Your task to perform on an android device: Open Maps and search for coffee Image 0: 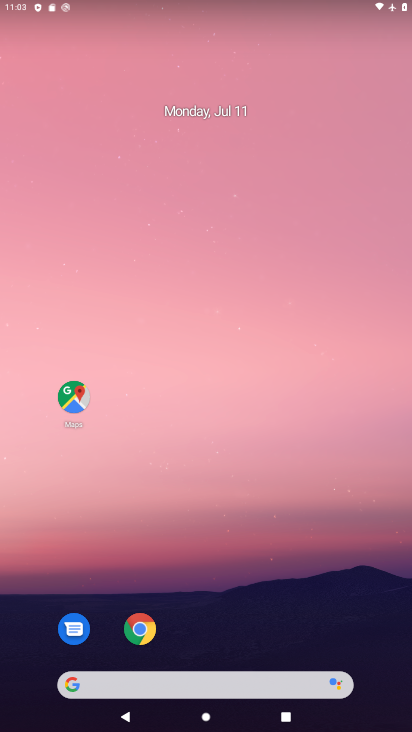
Step 0: click (238, 167)
Your task to perform on an android device: Open Maps and search for coffee Image 1: 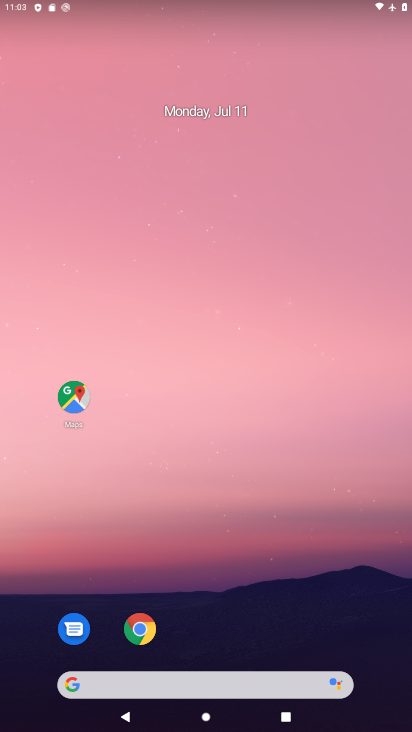
Step 1: drag from (350, 698) to (230, 223)
Your task to perform on an android device: Open Maps and search for coffee Image 2: 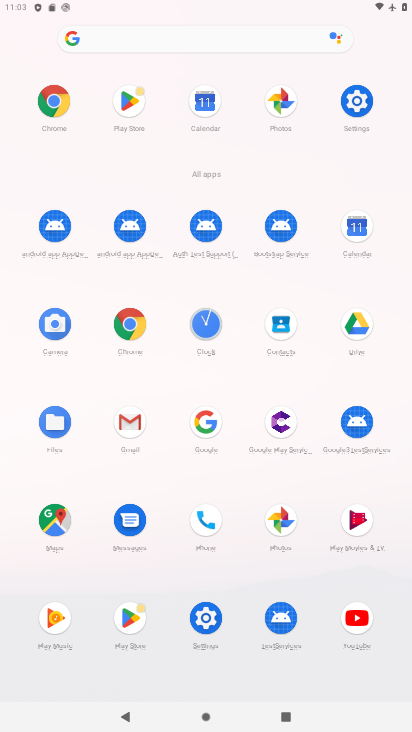
Step 2: click (52, 519)
Your task to perform on an android device: Open Maps and search for coffee Image 3: 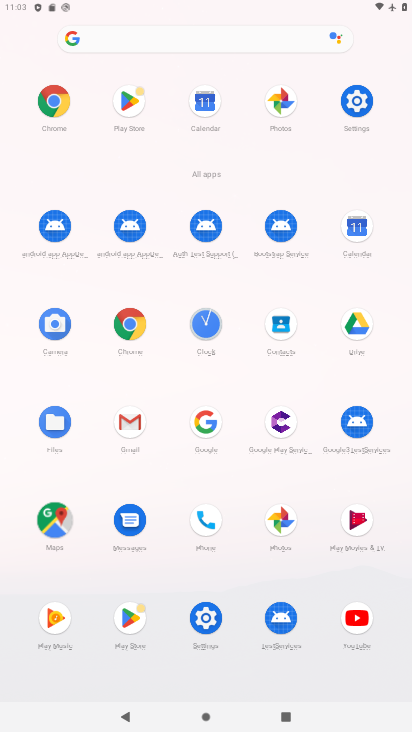
Step 3: click (53, 520)
Your task to perform on an android device: Open Maps and search for coffee Image 4: 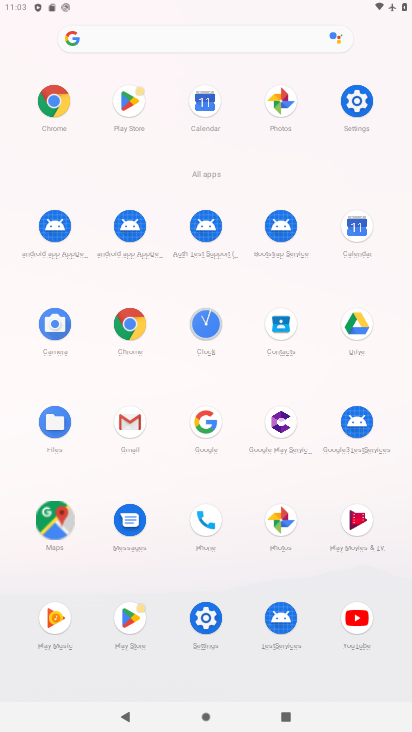
Step 4: click (56, 519)
Your task to perform on an android device: Open Maps and search for coffee Image 5: 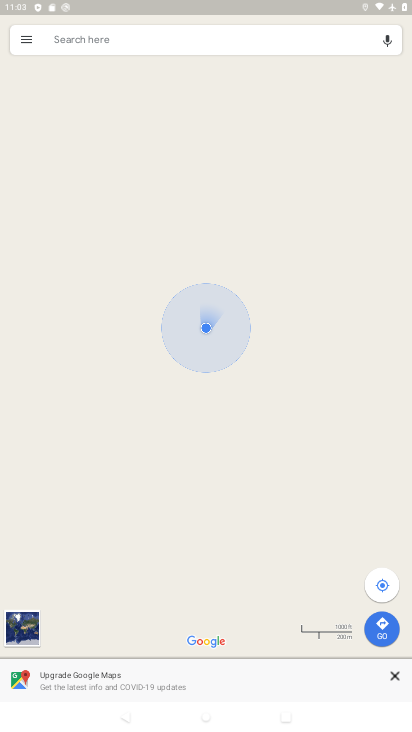
Step 5: click (58, 31)
Your task to perform on an android device: Open Maps and search for coffee Image 6: 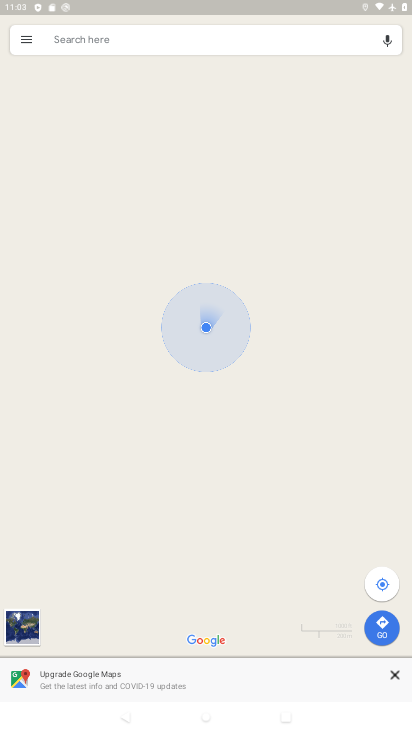
Step 6: click (61, 32)
Your task to perform on an android device: Open Maps and search for coffee Image 7: 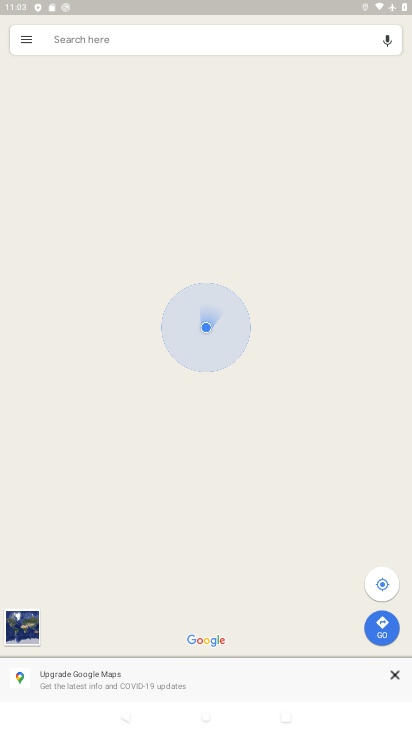
Step 7: click (63, 34)
Your task to perform on an android device: Open Maps and search for coffee Image 8: 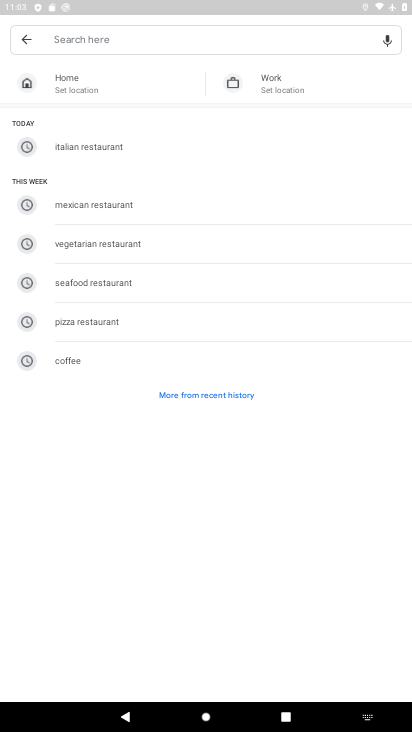
Step 8: type "coffee"
Your task to perform on an android device: Open Maps and search for coffee Image 9: 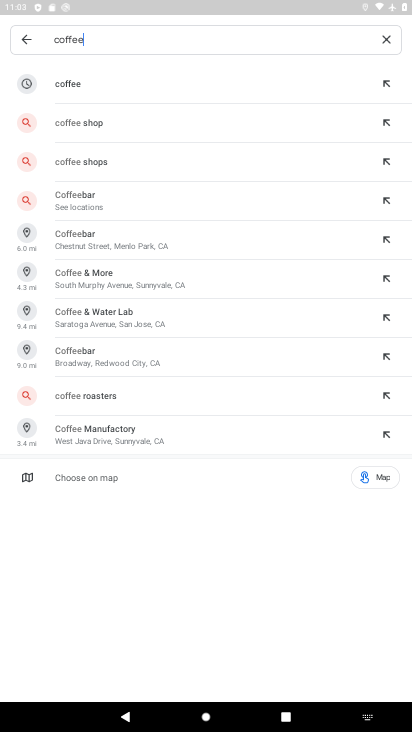
Step 9: click (58, 79)
Your task to perform on an android device: Open Maps and search for coffee Image 10: 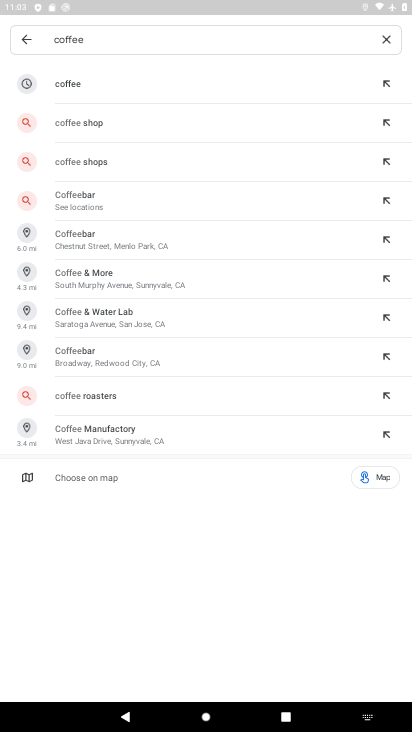
Step 10: click (55, 80)
Your task to perform on an android device: Open Maps and search for coffee Image 11: 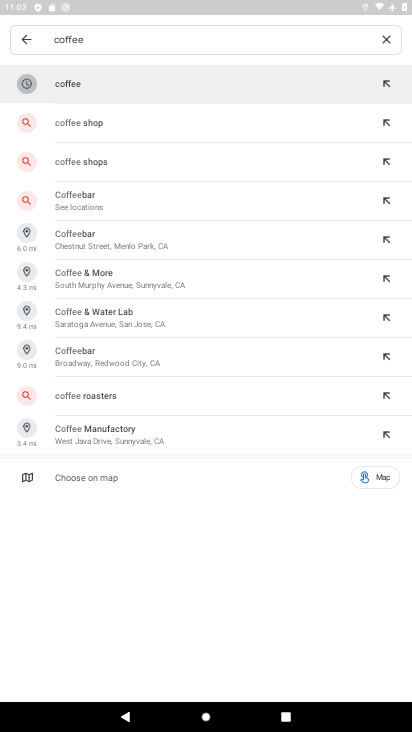
Step 11: click (58, 82)
Your task to perform on an android device: Open Maps and search for coffee Image 12: 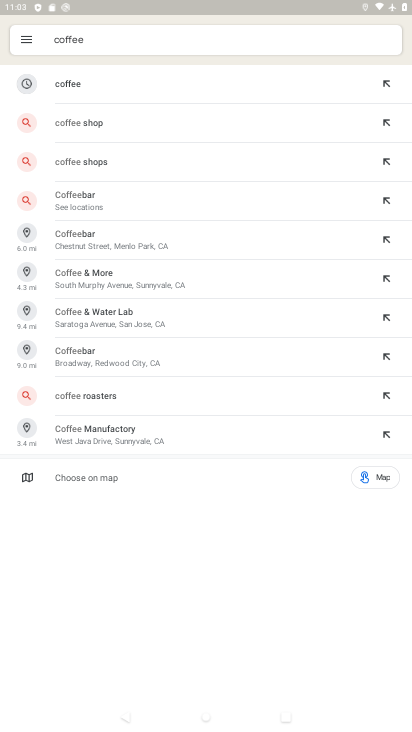
Step 12: click (63, 85)
Your task to perform on an android device: Open Maps and search for coffee Image 13: 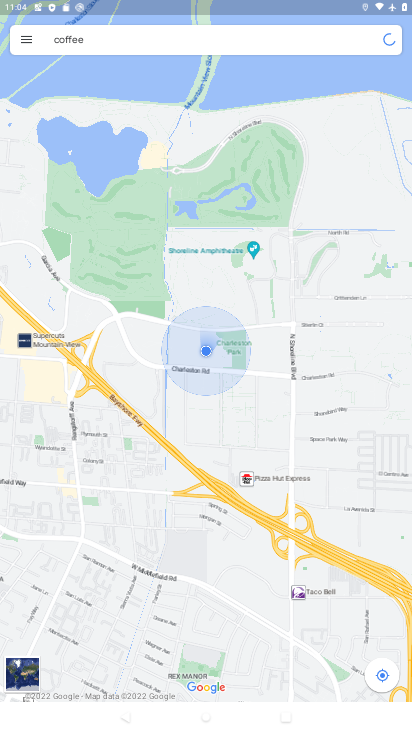
Step 13: task complete